Your task to perform on an android device: Open the map Image 0: 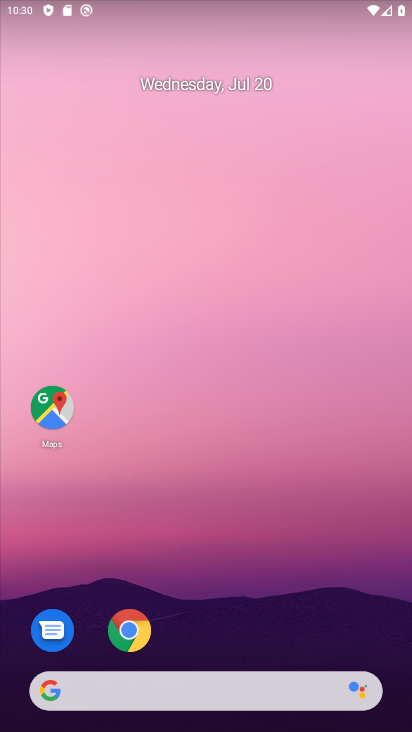
Step 0: drag from (205, 724) to (205, 92)
Your task to perform on an android device: Open the map Image 1: 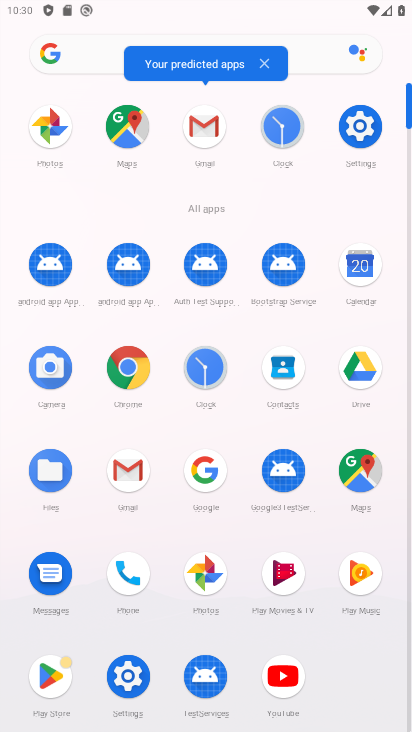
Step 1: click (362, 472)
Your task to perform on an android device: Open the map Image 2: 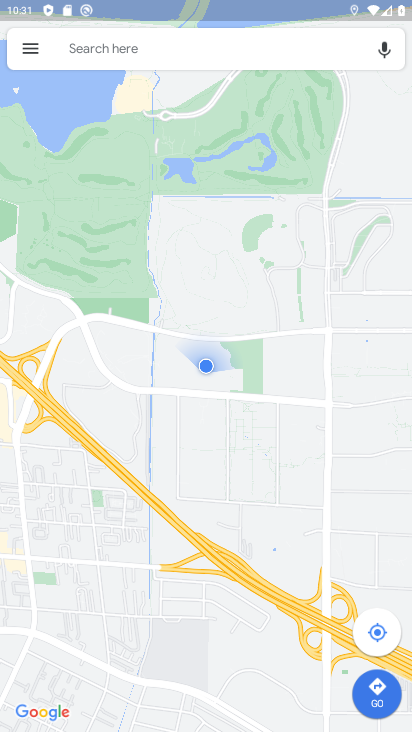
Step 2: task complete